Your task to perform on an android device: Search for seafood restaurants on Google Maps Image 0: 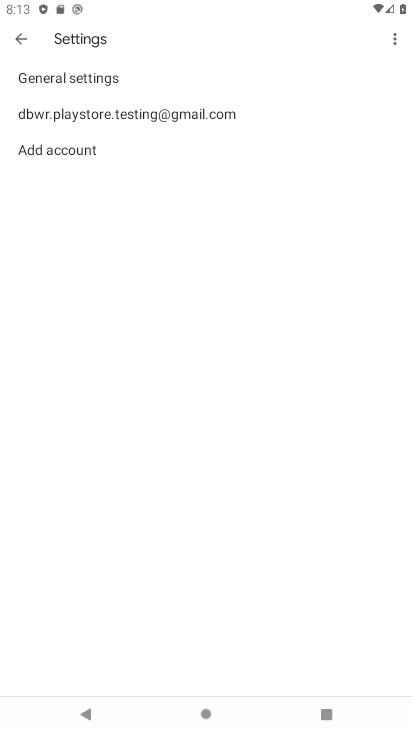
Step 0: press back button
Your task to perform on an android device: Search for seafood restaurants on Google Maps Image 1: 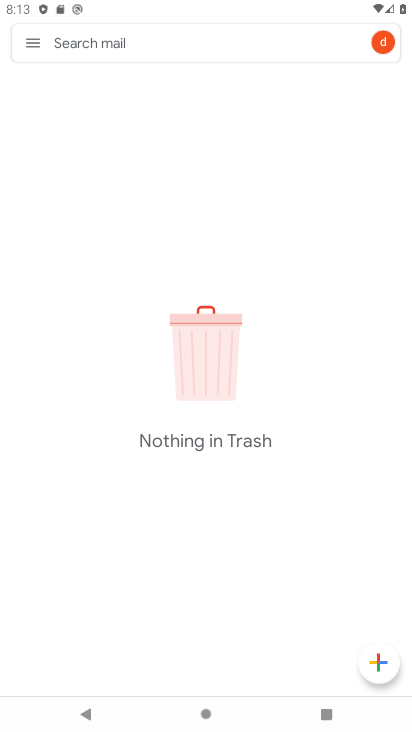
Step 1: press home button
Your task to perform on an android device: Search for seafood restaurants on Google Maps Image 2: 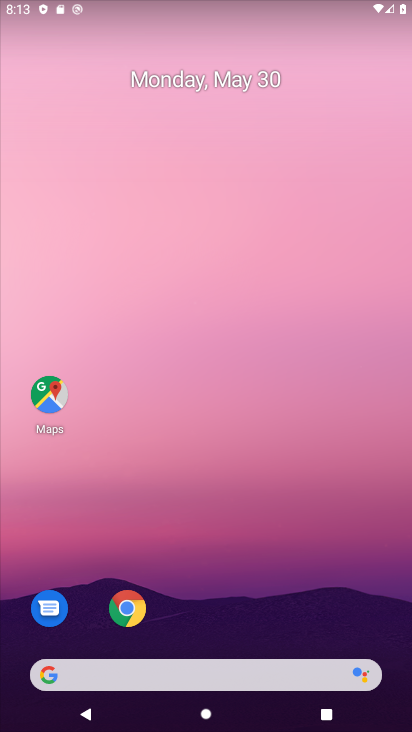
Step 2: click (39, 404)
Your task to perform on an android device: Search for seafood restaurants on Google Maps Image 3: 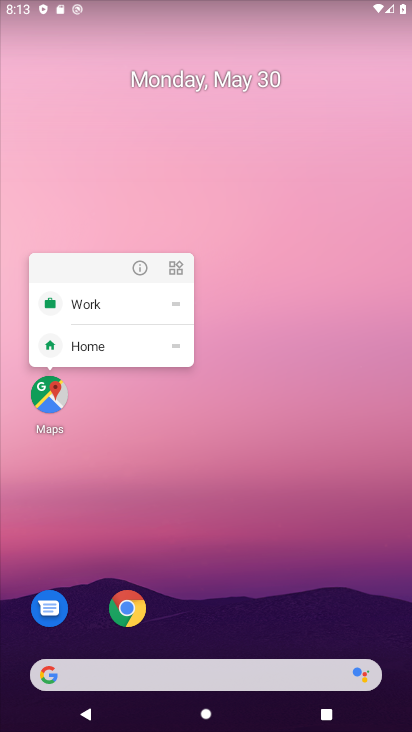
Step 3: click (46, 393)
Your task to perform on an android device: Search for seafood restaurants on Google Maps Image 4: 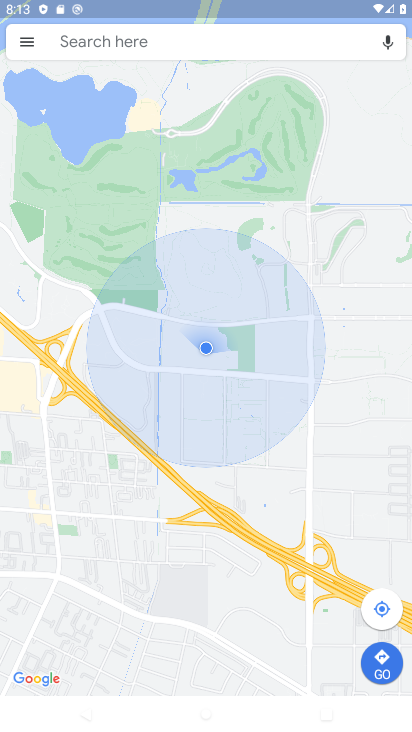
Step 4: click (118, 43)
Your task to perform on an android device: Search for seafood restaurants on Google Maps Image 5: 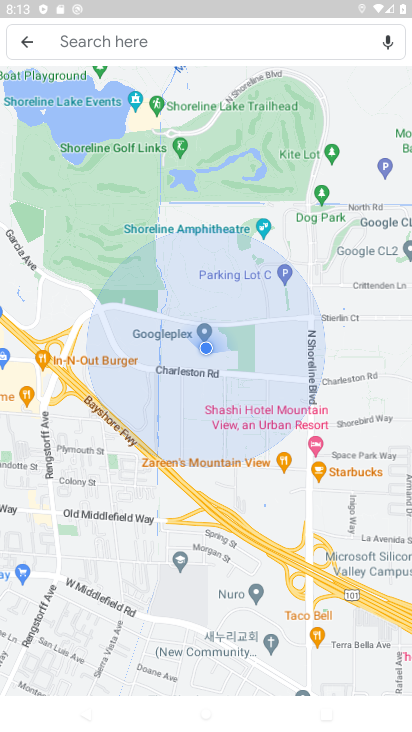
Step 5: click (76, 42)
Your task to perform on an android device: Search for seafood restaurants on Google Maps Image 6: 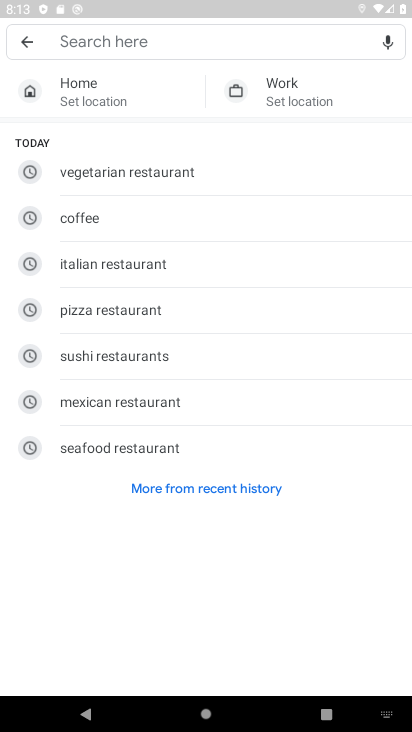
Step 6: type "seafood restaurants"
Your task to perform on an android device: Search for seafood restaurants on Google Maps Image 7: 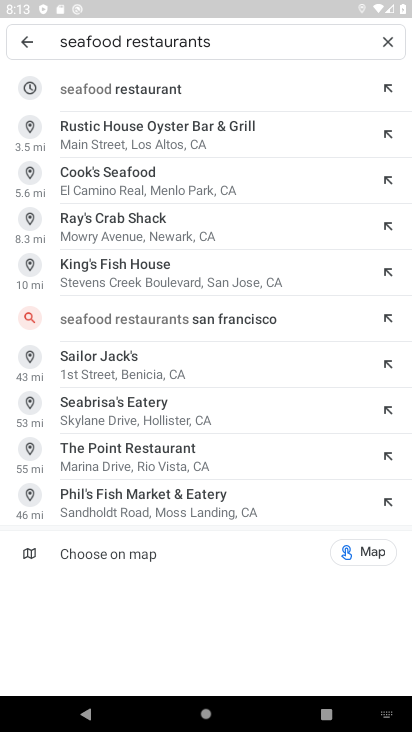
Step 7: click (124, 89)
Your task to perform on an android device: Search for seafood restaurants on Google Maps Image 8: 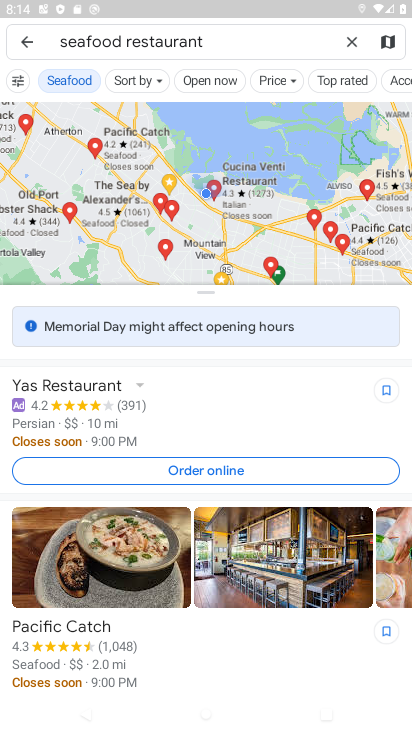
Step 8: task complete